Your task to perform on an android device: Open the calendar app, open the side menu, and click the "Day" option Image 0: 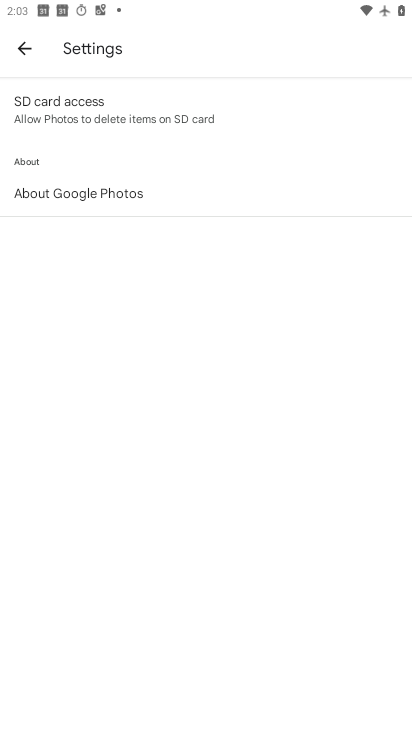
Step 0: press home button
Your task to perform on an android device: Open the calendar app, open the side menu, and click the "Day" option Image 1: 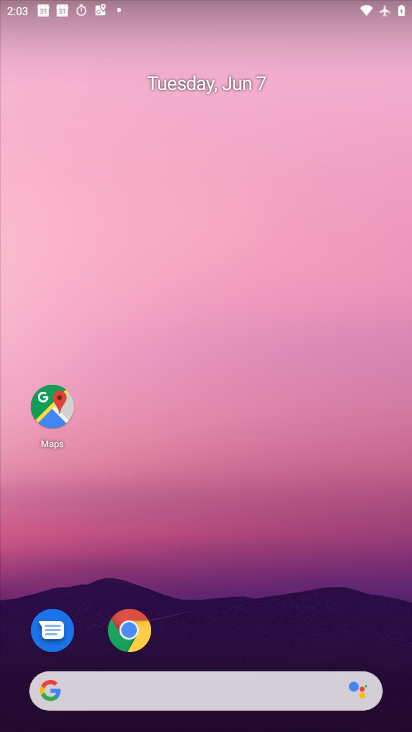
Step 1: drag from (333, 606) to (333, 316)
Your task to perform on an android device: Open the calendar app, open the side menu, and click the "Day" option Image 2: 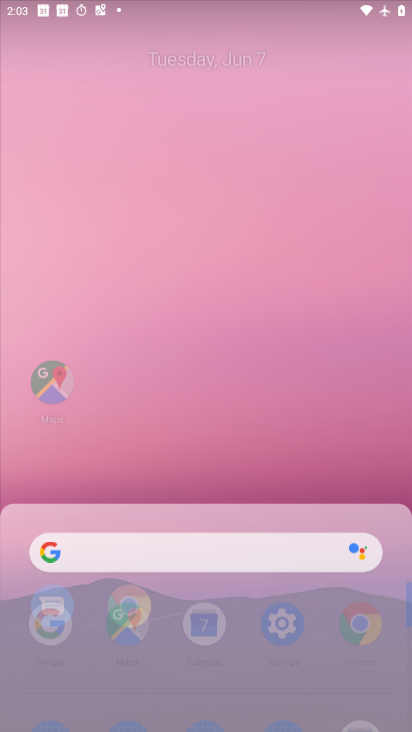
Step 2: click (292, 63)
Your task to perform on an android device: Open the calendar app, open the side menu, and click the "Day" option Image 3: 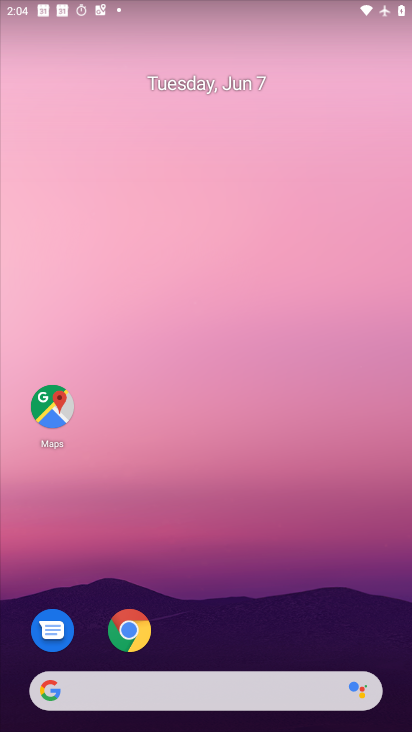
Step 3: drag from (302, 572) to (254, 4)
Your task to perform on an android device: Open the calendar app, open the side menu, and click the "Day" option Image 4: 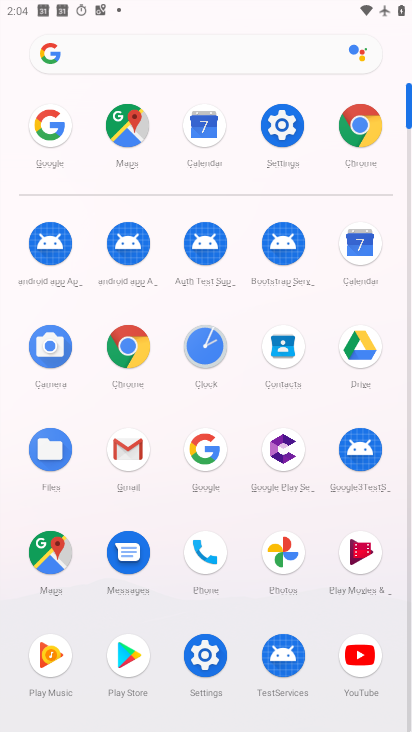
Step 4: click (362, 255)
Your task to perform on an android device: Open the calendar app, open the side menu, and click the "Day" option Image 5: 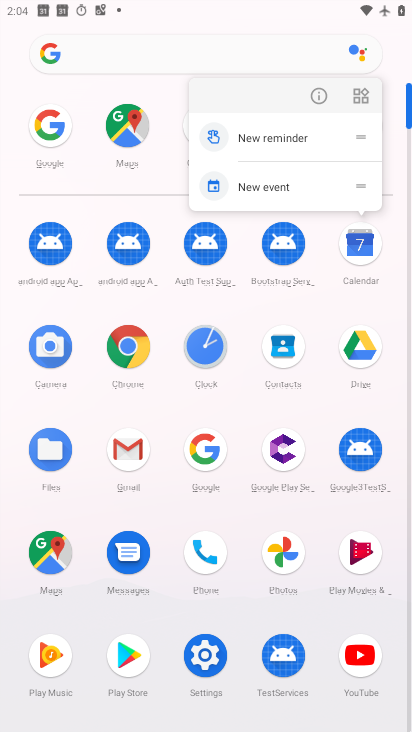
Step 5: click (362, 255)
Your task to perform on an android device: Open the calendar app, open the side menu, and click the "Day" option Image 6: 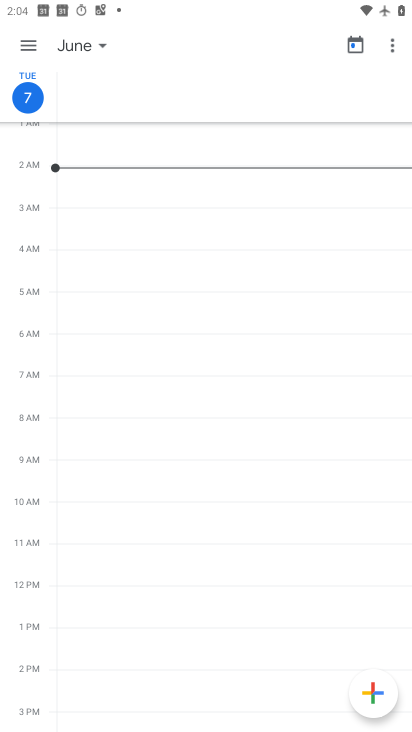
Step 6: click (28, 41)
Your task to perform on an android device: Open the calendar app, open the side menu, and click the "Day" option Image 7: 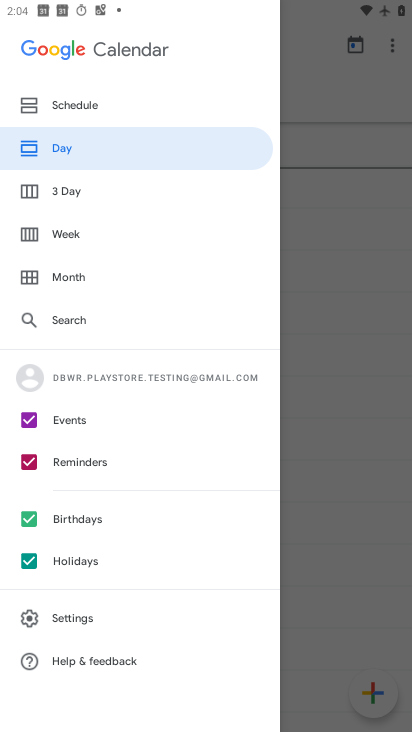
Step 7: click (157, 151)
Your task to perform on an android device: Open the calendar app, open the side menu, and click the "Day" option Image 8: 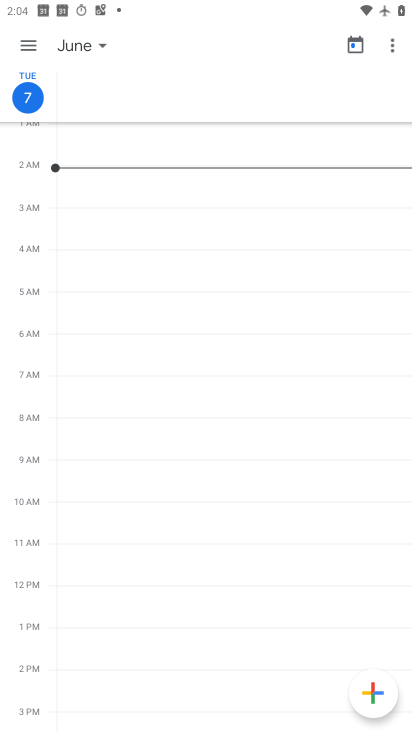
Step 8: task complete